Your task to perform on an android device: visit the assistant section in the google photos Image 0: 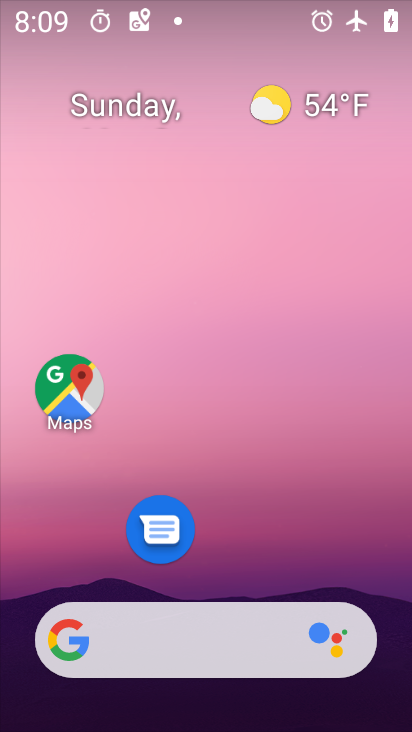
Step 0: drag from (227, 543) to (286, 67)
Your task to perform on an android device: visit the assistant section in the google photos Image 1: 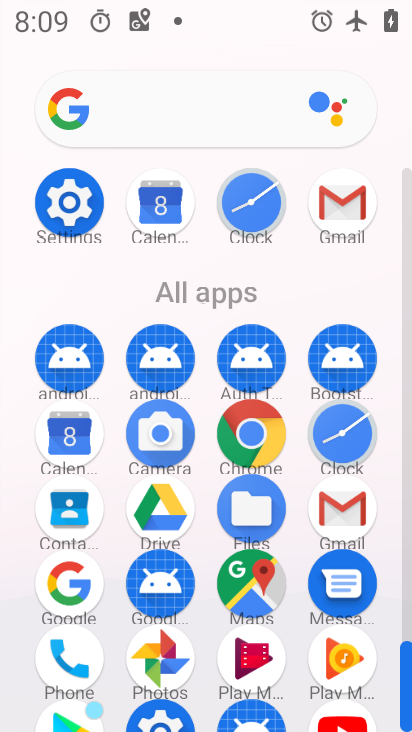
Step 1: drag from (218, 594) to (213, 473)
Your task to perform on an android device: visit the assistant section in the google photos Image 2: 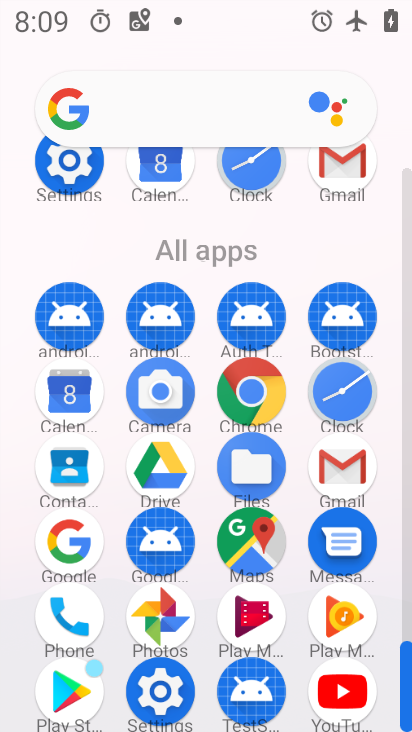
Step 2: click (164, 603)
Your task to perform on an android device: visit the assistant section in the google photos Image 3: 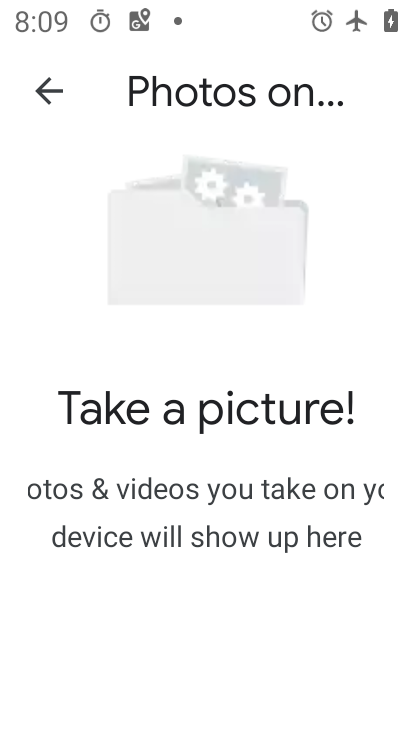
Step 3: click (55, 96)
Your task to perform on an android device: visit the assistant section in the google photos Image 4: 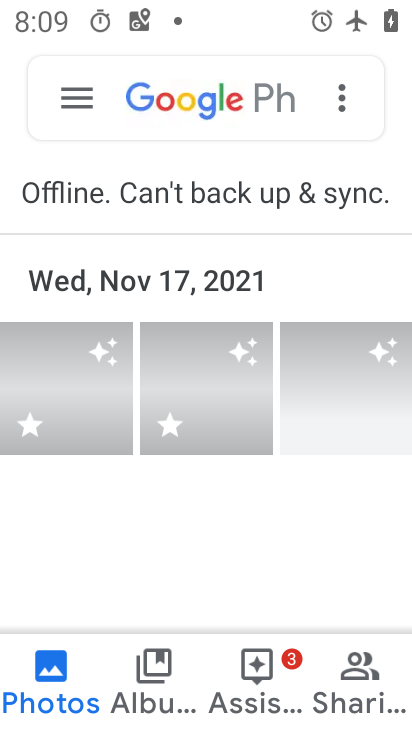
Step 4: click (271, 689)
Your task to perform on an android device: visit the assistant section in the google photos Image 5: 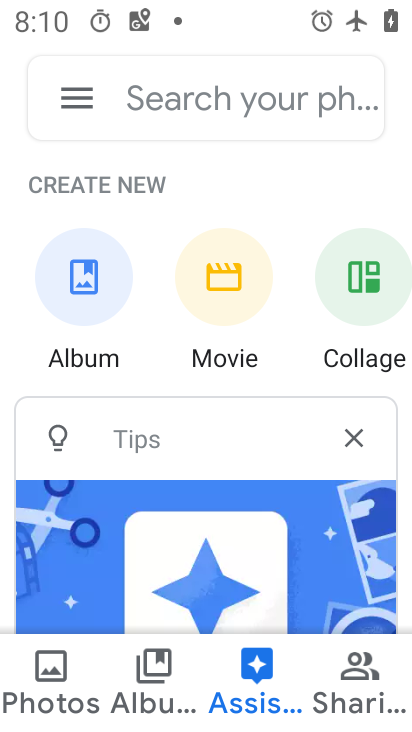
Step 5: task complete